Your task to perform on an android device: toggle wifi Image 0: 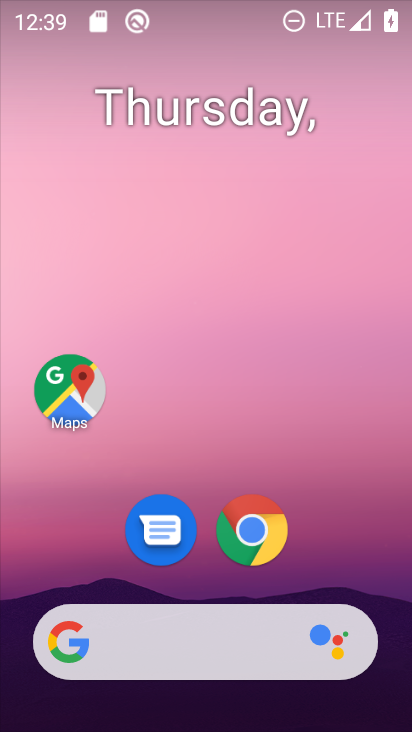
Step 0: drag from (202, 633) to (159, 137)
Your task to perform on an android device: toggle wifi Image 1: 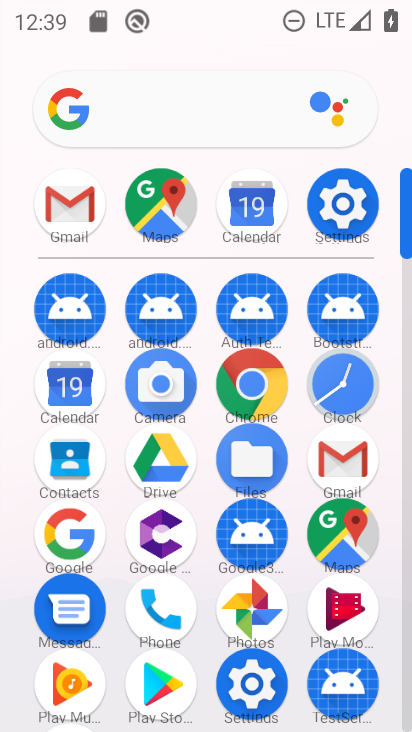
Step 1: click (354, 207)
Your task to perform on an android device: toggle wifi Image 2: 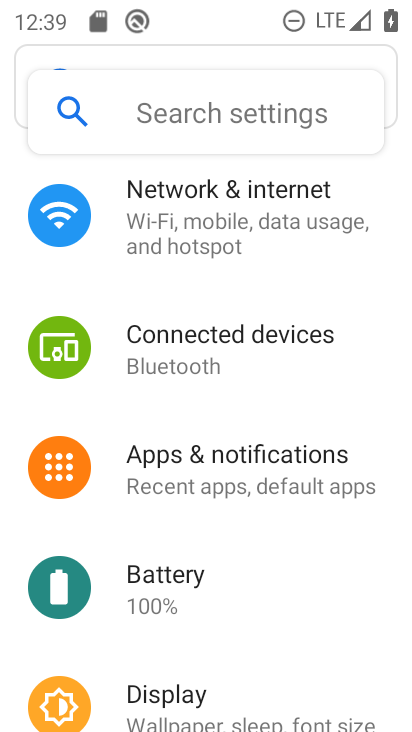
Step 2: click (354, 207)
Your task to perform on an android device: toggle wifi Image 3: 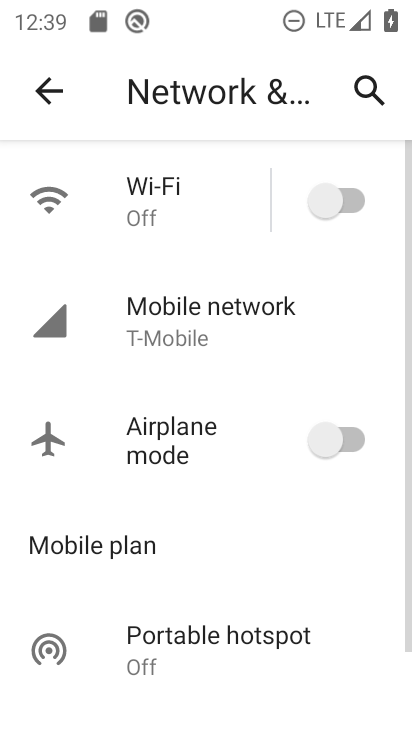
Step 3: click (349, 208)
Your task to perform on an android device: toggle wifi Image 4: 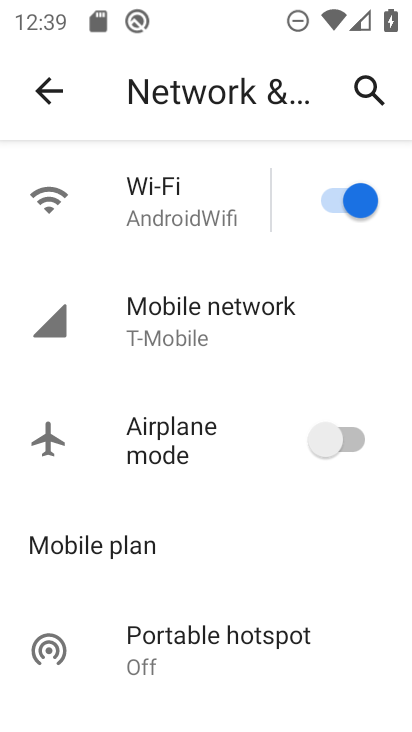
Step 4: task complete